Your task to perform on an android device: Search for pizza restaurants on Maps Image 0: 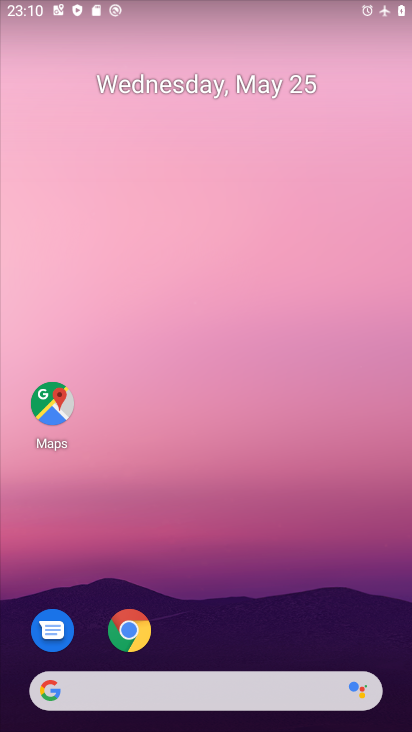
Step 0: click (37, 412)
Your task to perform on an android device: Search for pizza restaurants on Maps Image 1: 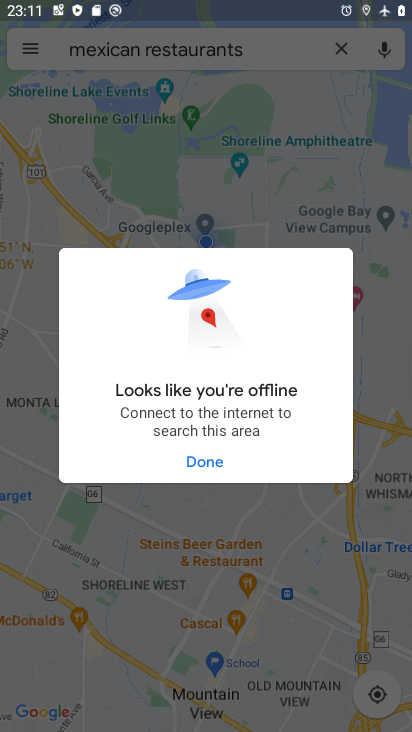
Step 1: task complete